Your task to perform on an android device: Search for Italian restaurants on Maps Image 0: 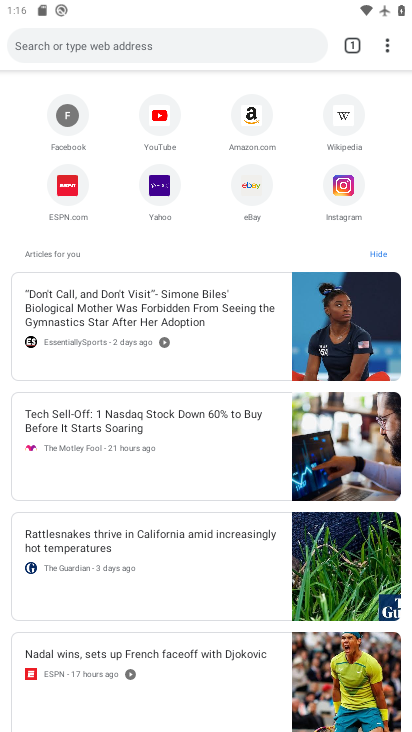
Step 0: press home button
Your task to perform on an android device: Search for Italian restaurants on Maps Image 1: 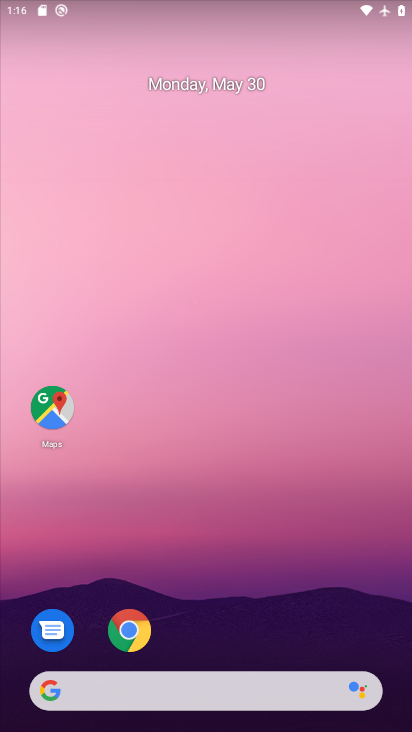
Step 1: click (45, 416)
Your task to perform on an android device: Search for Italian restaurants on Maps Image 2: 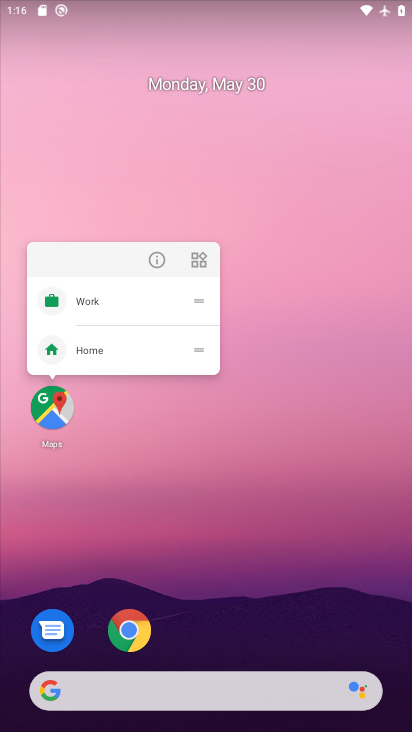
Step 2: click (54, 412)
Your task to perform on an android device: Search for Italian restaurants on Maps Image 3: 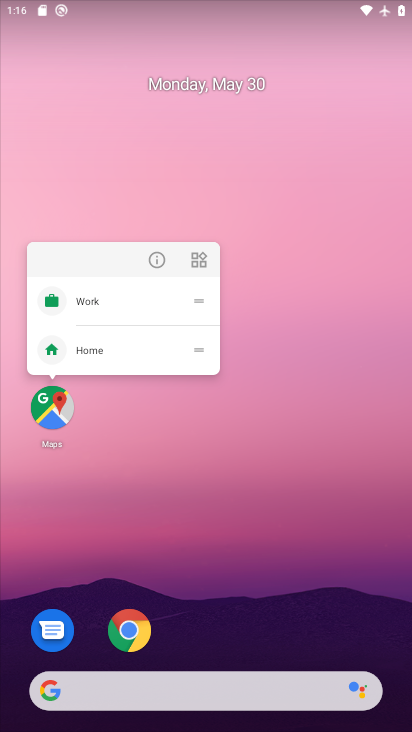
Step 3: click (45, 413)
Your task to perform on an android device: Search for Italian restaurants on Maps Image 4: 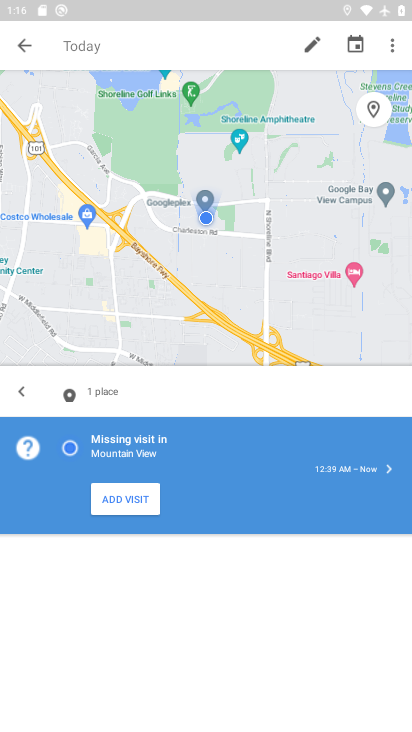
Step 4: click (24, 47)
Your task to perform on an android device: Search for Italian restaurants on Maps Image 5: 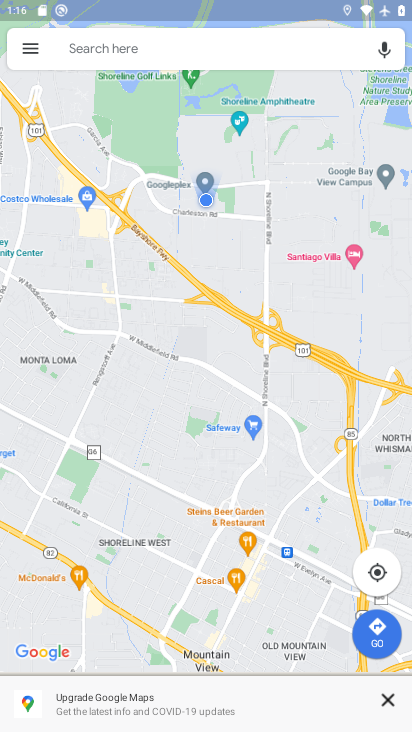
Step 5: click (109, 44)
Your task to perform on an android device: Search for Italian restaurants on Maps Image 6: 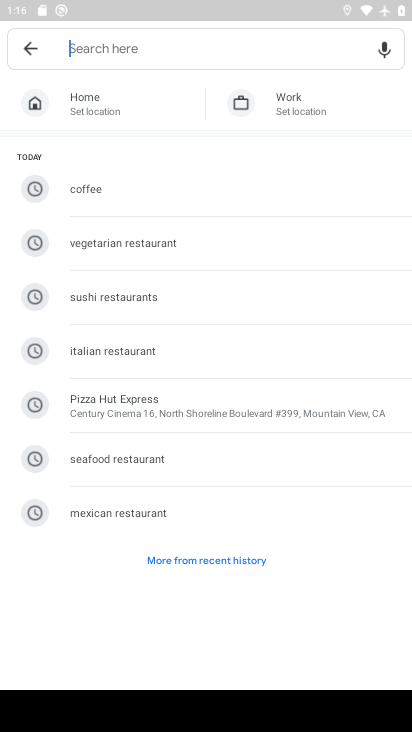
Step 6: click (113, 347)
Your task to perform on an android device: Search for Italian restaurants on Maps Image 7: 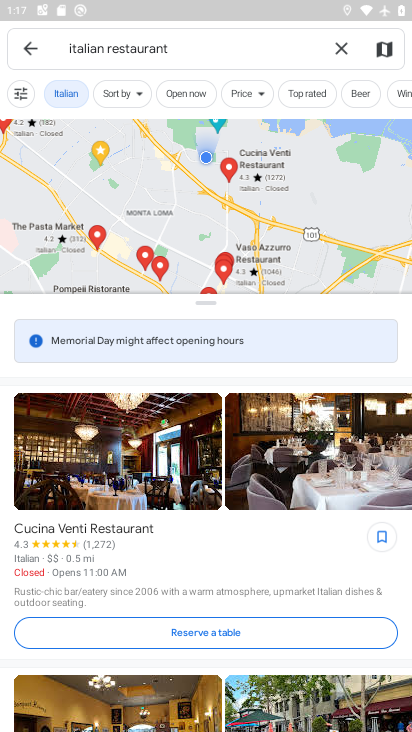
Step 7: task complete